Your task to perform on an android device: change the clock style Image 0: 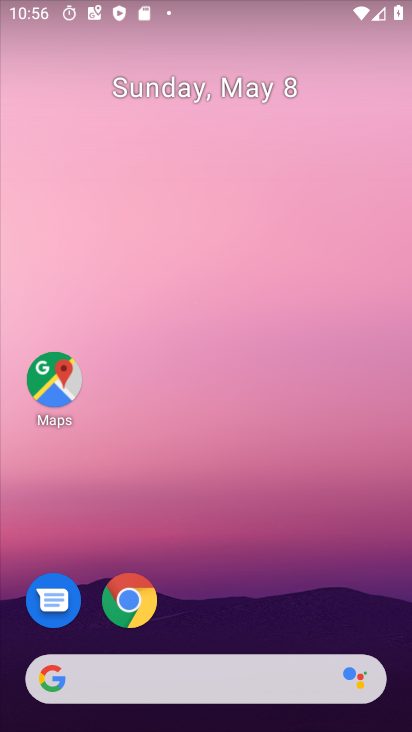
Step 0: drag from (0, 700) to (326, 18)
Your task to perform on an android device: change the clock style Image 1: 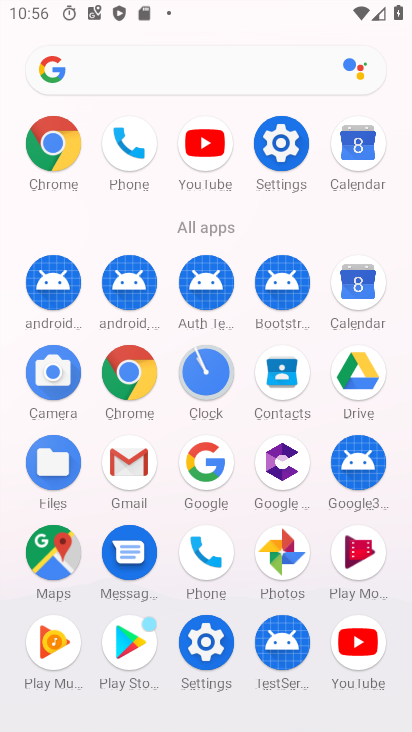
Step 1: click (200, 373)
Your task to perform on an android device: change the clock style Image 2: 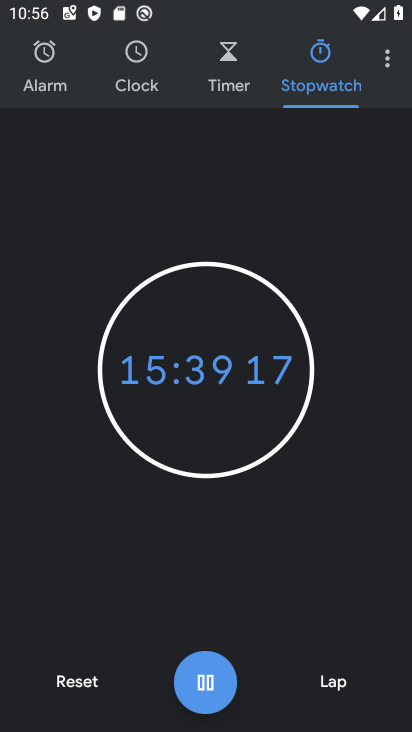
Step 2: click (383, 58)
Your task to perform on an android device: change the clock style Image 3: 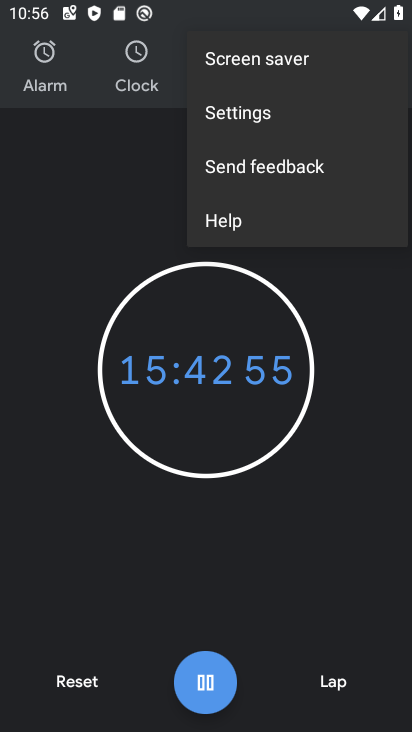
Step 3: click (254, 123)
Your task to perform on an android device: change the clock style Image 4: 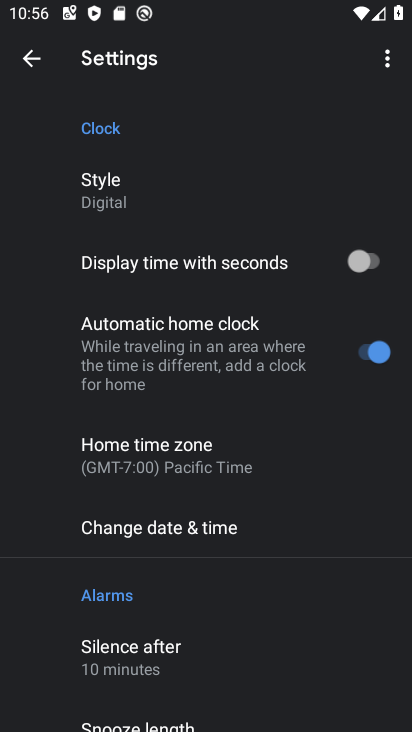
Step 4: click (115, 167)
Your task to perform on an android device: change the clock style Image 5: 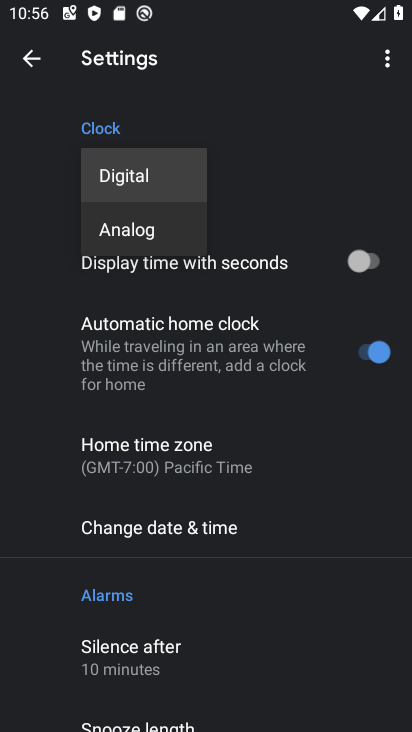
Step 5: click (105, 234)
Your task to perform on an android device: change the clock style Image 6: 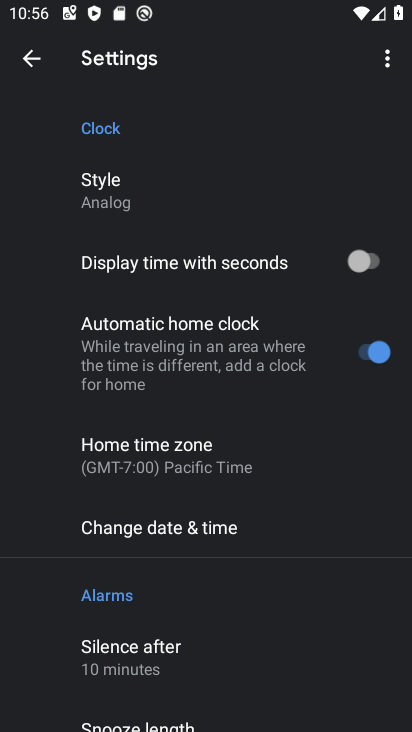
Step 6: task complete